Your task to perform on an android device: Go to internet settings Image 0: 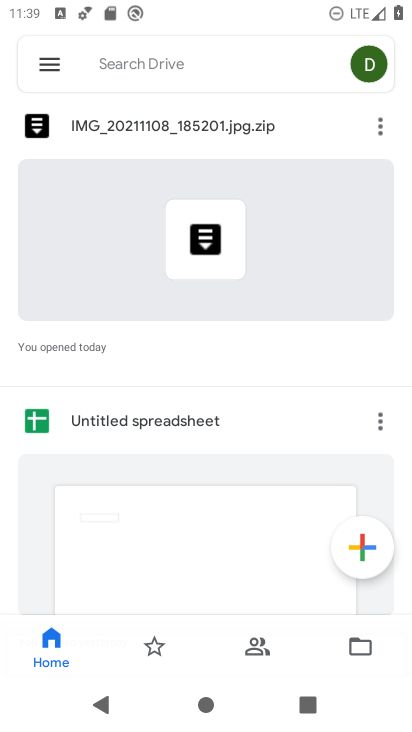
Step 0: drag from (180, 23) to (270, 672)
Your task to perform on an android device: Go to internet settings Image 1: 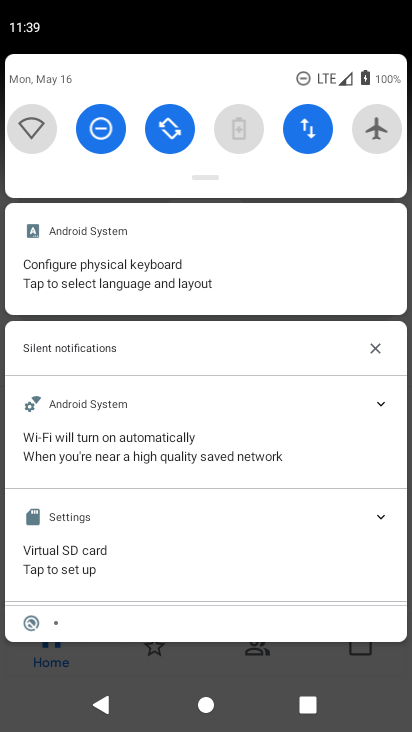
Step 1: click (327, 126)
Your task to perform on an android device: Go to internet settings Image 2: 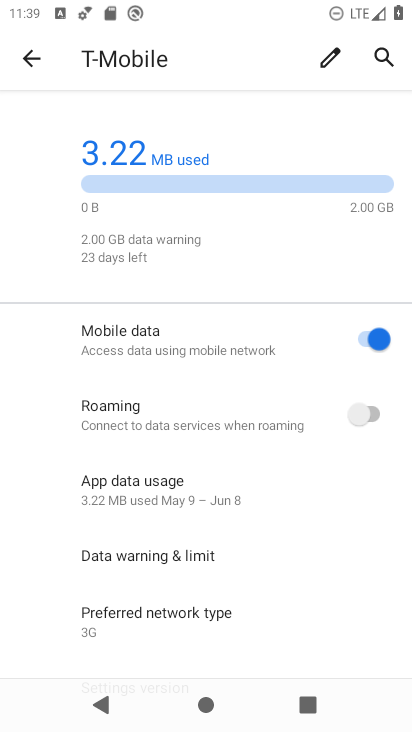
Step 2: task complete